Your task to perform on an android device: Open CNN.com Image 0: 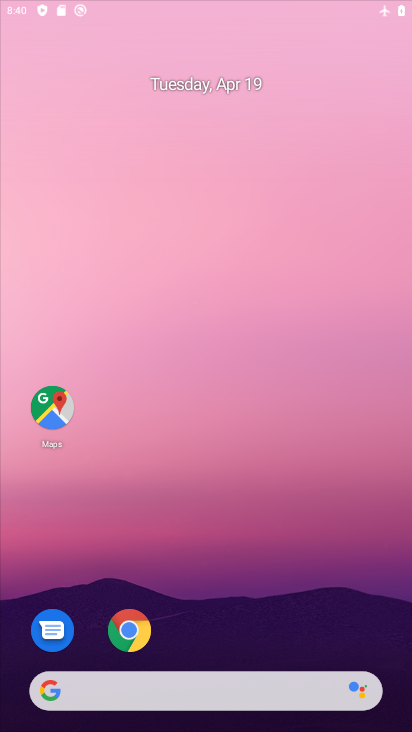
Step 0: click (310, 33)
Your task to perform on an android device: Open CNN.com Image 1: 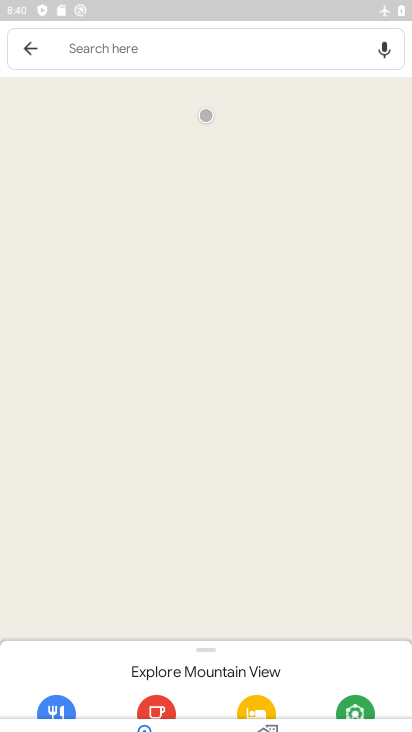
Step 1: press home button
Your task to perform on an android device: Open CNN.com Image 2: 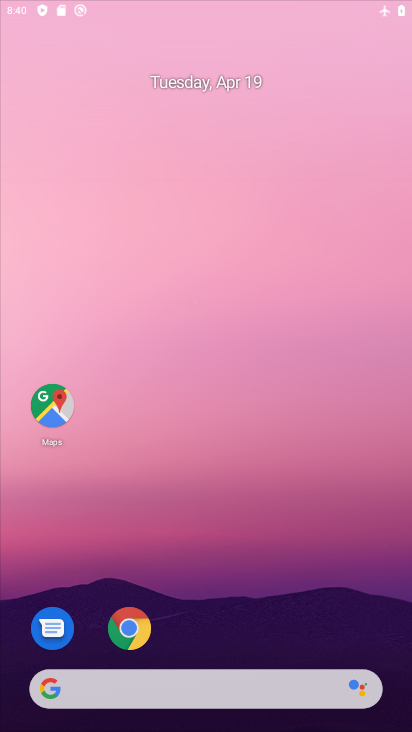
Step 2: click (402, 510)
Your task to perform on an android device: Open CNN.com Image 3: 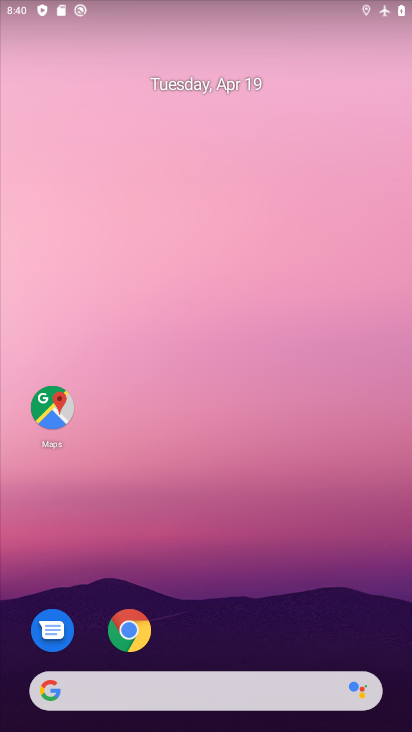
Step 3: drag from (258, 678) to (291, 235)
Your task to perform on an android device: Open CNN.com Image 4: 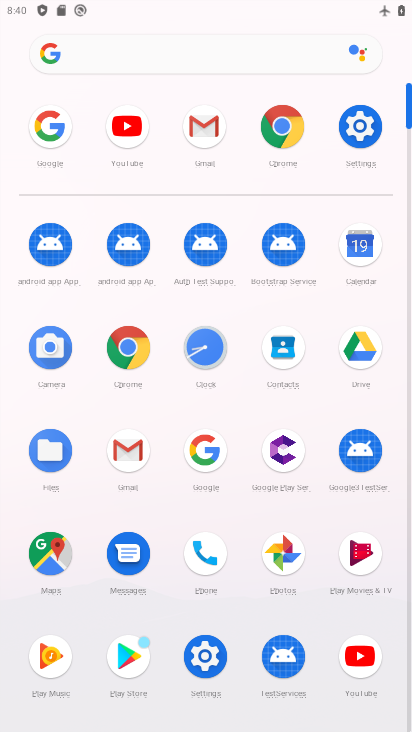
Step 4: click (287, 149)
Your task to perform on an android device: Open CNN.com Image 5: 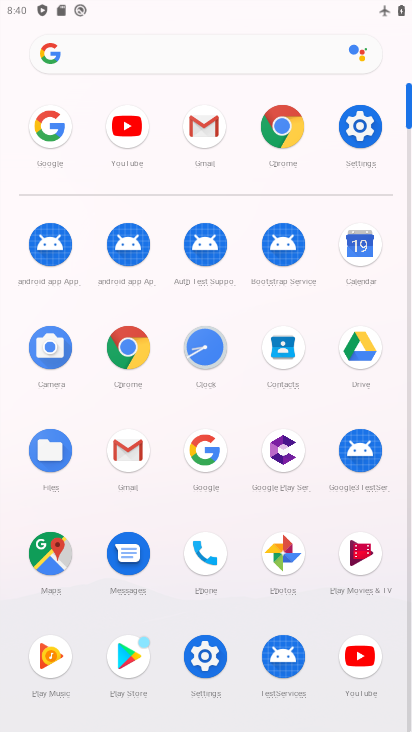
Step 5: click (287, 147)
Your task to perform on an android device: Open CNN.com Image 6: 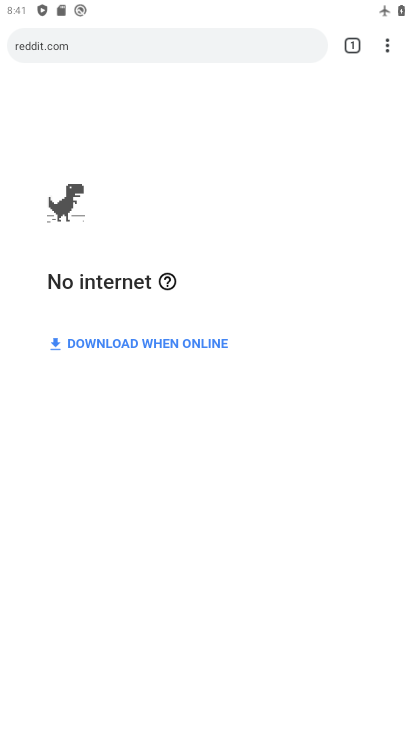
Step 6: task complete